Your task to perform on an android device: change your default location settings in chrome Image 0: 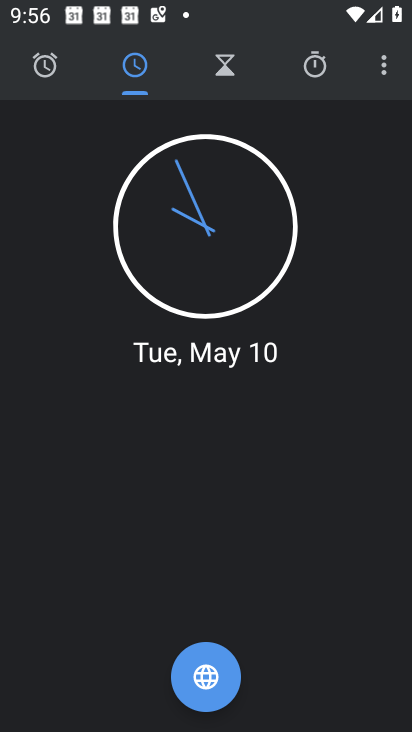
Step 0: press home button
Your task to perform on an android device: change your default location settings in chrome Image 1: 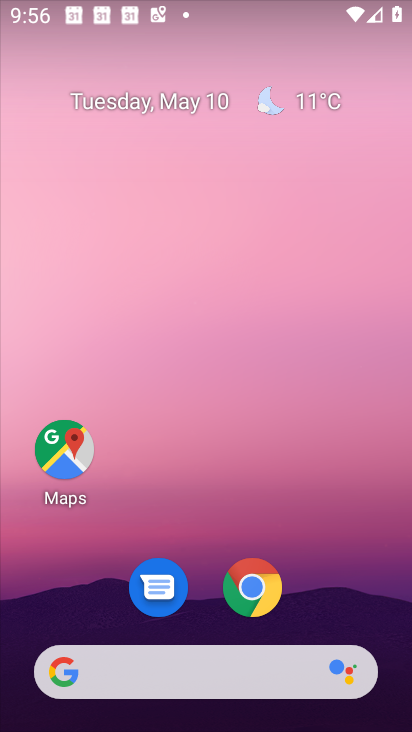
Step 1: drag from (386, 612) to (375, 183)
Your task to perform on an android device: change your default location settings in chrome Image 2: 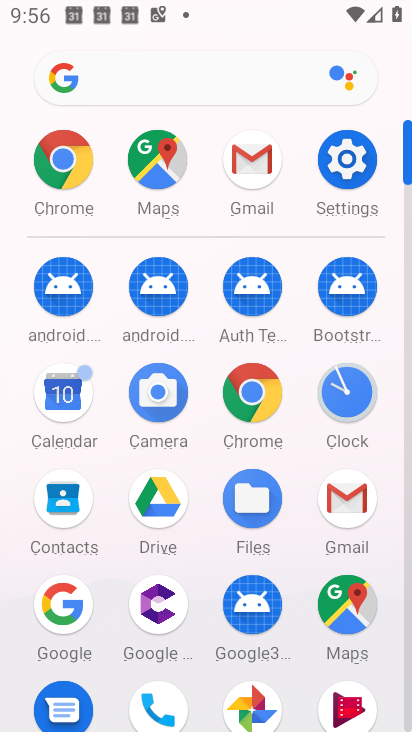
Step 2: click (249, 406)
Your task to perform on an android device: change your default location settings in chrome Image 3: 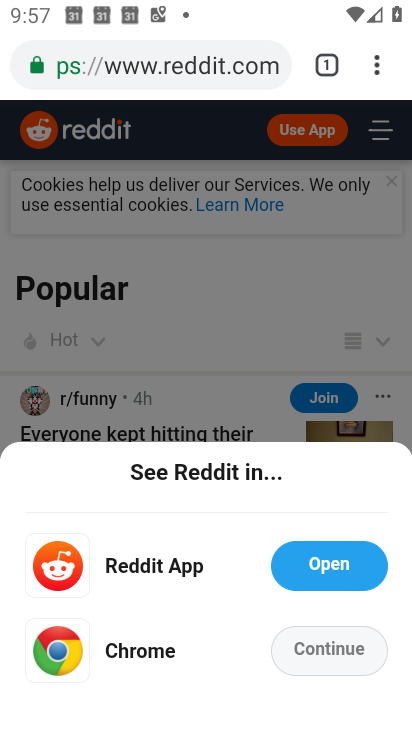
Step 3: drag from (383, 70) to (242, 643)
Your task to perform on an android device: change your default location settings in chrome Image 4: 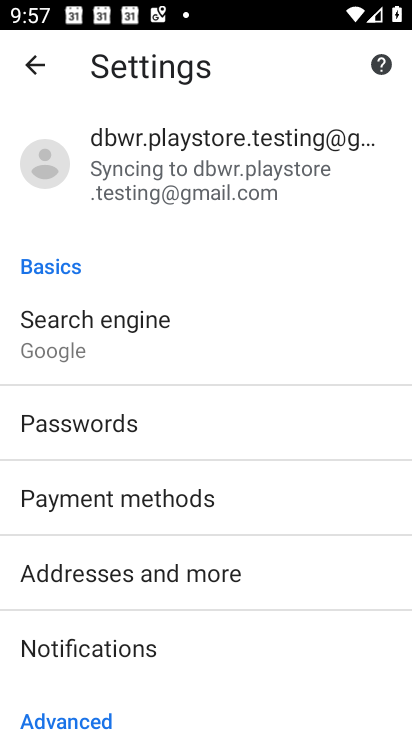
Step 4: drag from (283, 667) to (308, 401)
Your task to perform on an android device: change your default location settings in chrome Image 5: 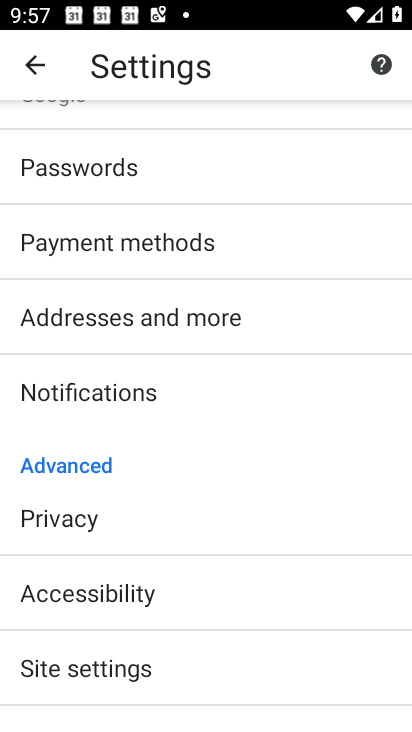
Step 5: drag from (286, 647) to (294, 424)
Your task to perform on an android device: change your default location settings in chrome Image 6: 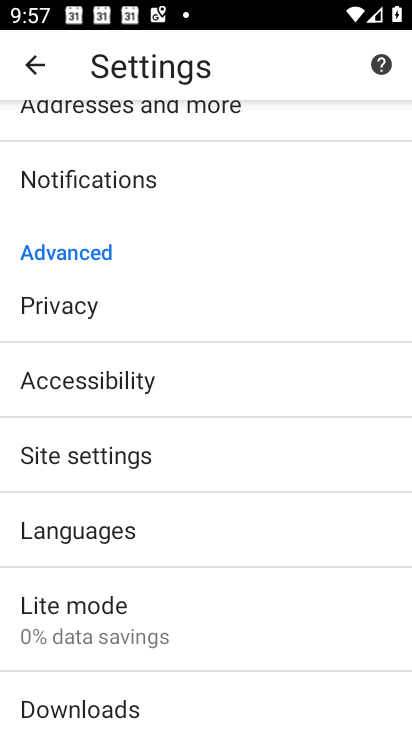
Step 6: drag from (275, 559) to (282, 305)
Your task to perform on an android device: change your default location settings in chrome Image 7: 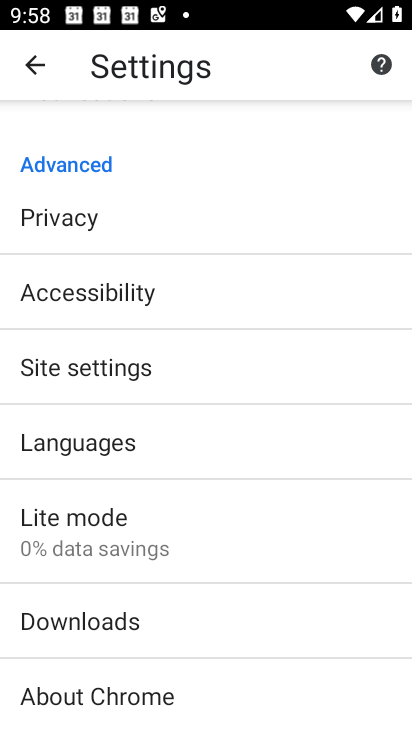
Step 7: click (120, 368)
Your task to perform on an android device: change your default location settings in chrome Image 8: 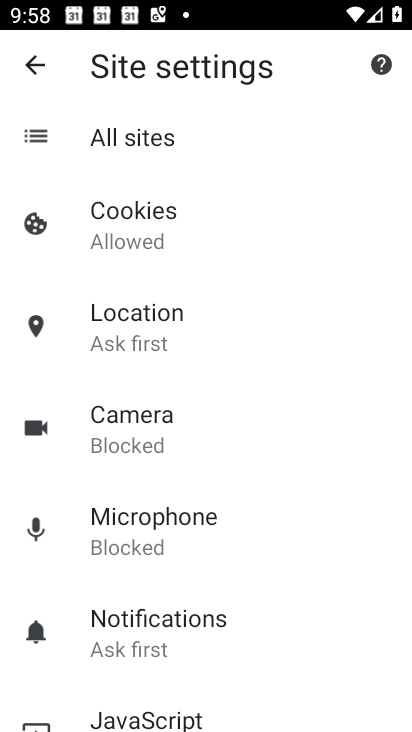
Step 8: click (188, 313)
Your task to perform on an android device: change your default location settings in chrome Image 9: 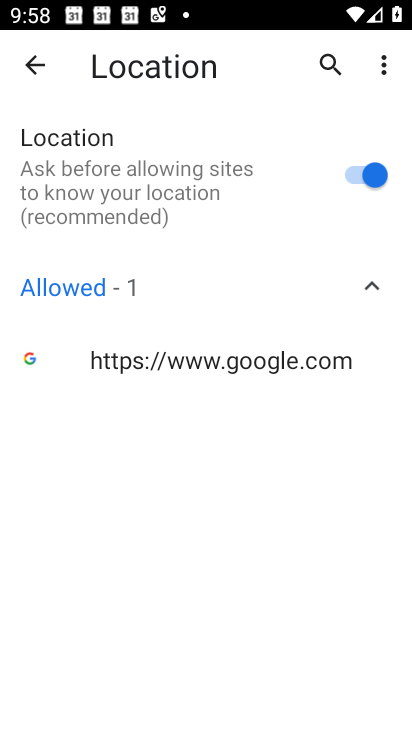
Step 9: click (367, 183)
Your task to perform on an android device: change your default location settings in chrome Image 10: 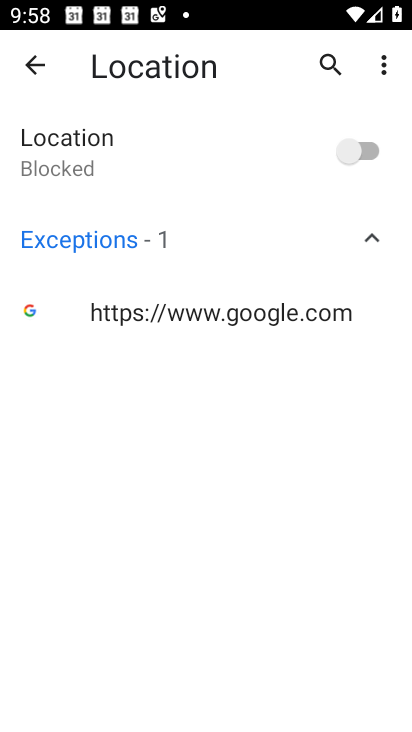
Step 10: task complete